Your task to perform on an android device: What's a good restaurant in San Francisco? Image 0: 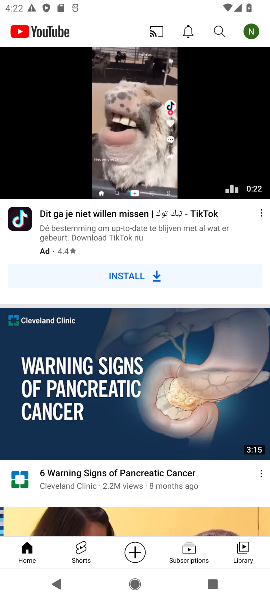
Step 0: press home button
Your task to perform on an android device: What's a good restaurant in San Francisco? Image 1: 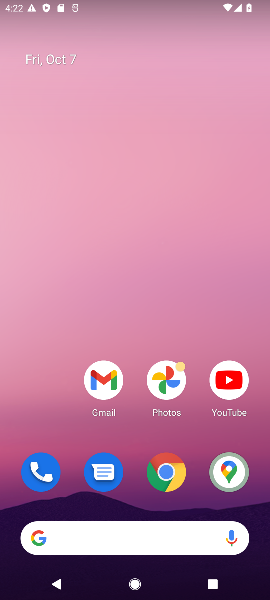
Step 1: click (168, 482)
Your task to perform on an android device: What's a good restaurant in San Francisco? Image 2: 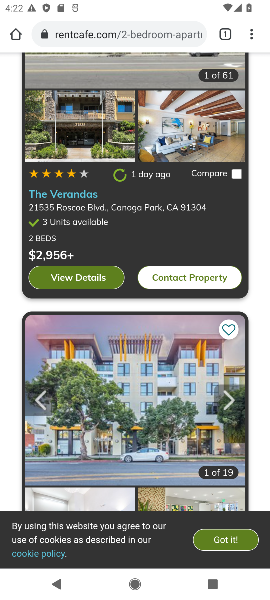
Step 2: click (116, 31)
Your task to perform on an android device: What's a good restaurant in San Francisco? Image 3: 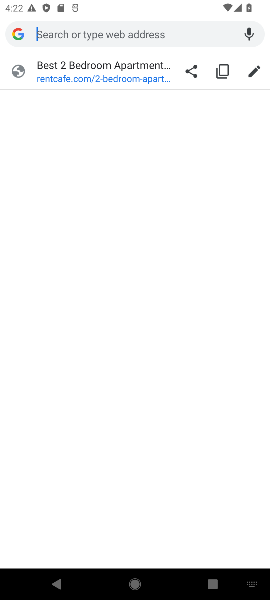
Step 3: type "good restaurant in San Francisco"
Your task to perform on an android device: What's a good restaurant in San Francisco? Image 4: 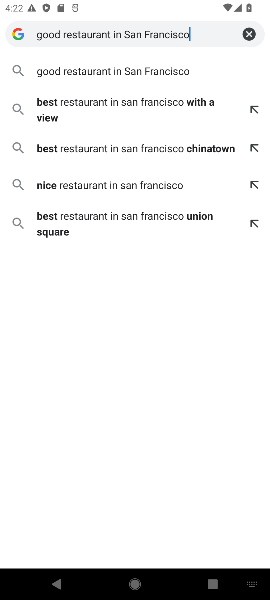
Step 4: press enter
Your task to perform on an android device: What's a good restaurant in San Francisco? Image 5: 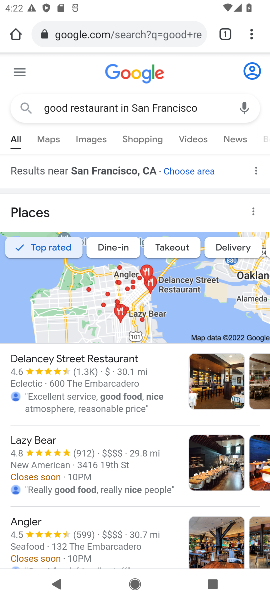
Step 5: drag from (98, 462) to (118, 326)
Your task to perform on an android device: What's a good restaurant in San Francisco? Image 6: 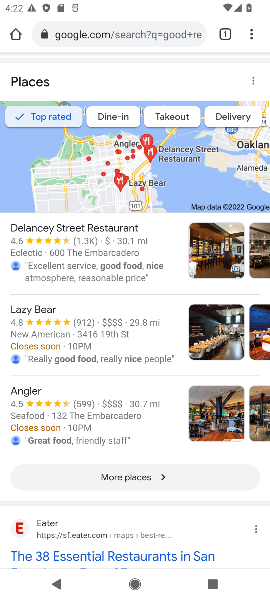
Step 6: drag from (121, 506) to (100, 470)
Your task to perform on an android device: What's a good restaurant in San Francisco? Image 7: 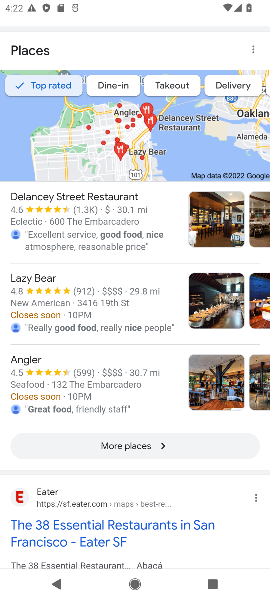
Step 7: click (124, 445)
Your task to perform on an android device: What's a good restaurant in San Francisco? Image 8: 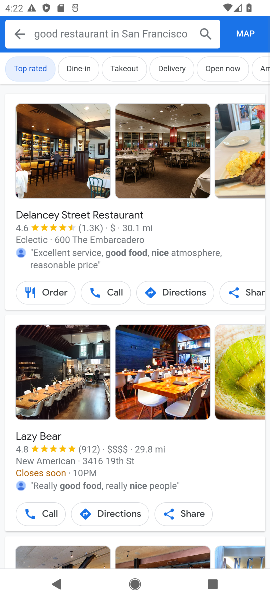
Step 8: task complete